Your task to perform on an android device: Open Youtube and go to "Your channel" Image 0: 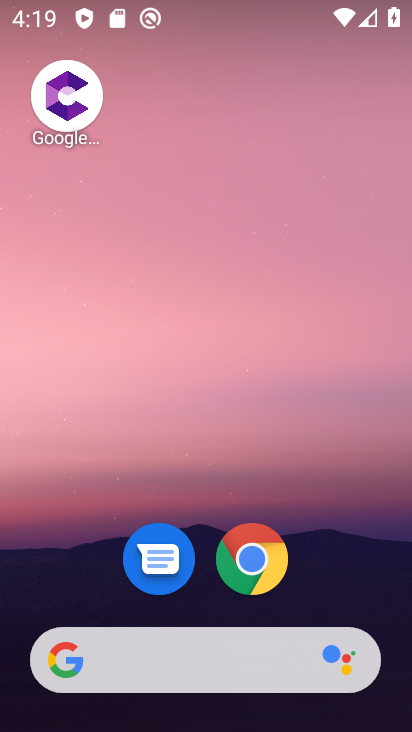
Step 0: drag from (379, 589) to (281, 99)
Your task to perform on an android device: Open Youtube and go to "Your channel" Image 1: 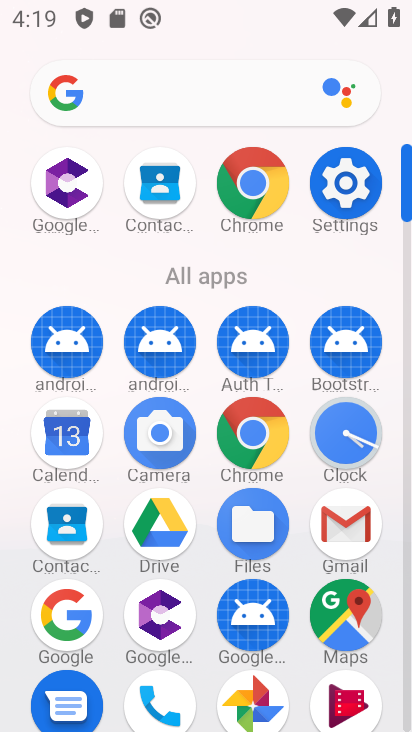
Step 1: click (406, 700)
Your task to perform on an android device: Open Youtube and go to "Your channel" Image 2: 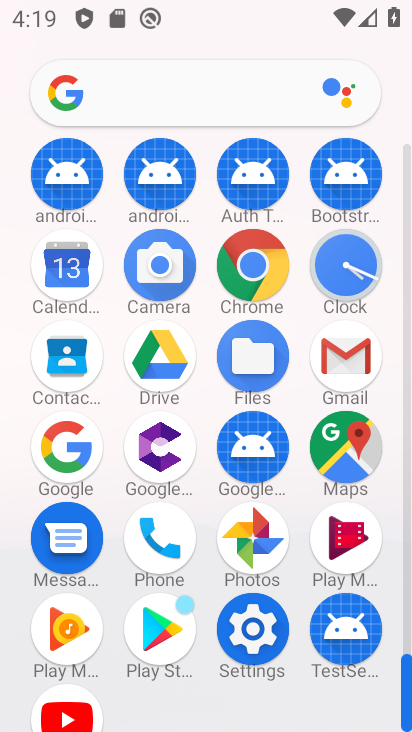
Step 2: click (66, 715)
Your task to perform on an android device: Open Youtube and go to "Your channel" Image 3: 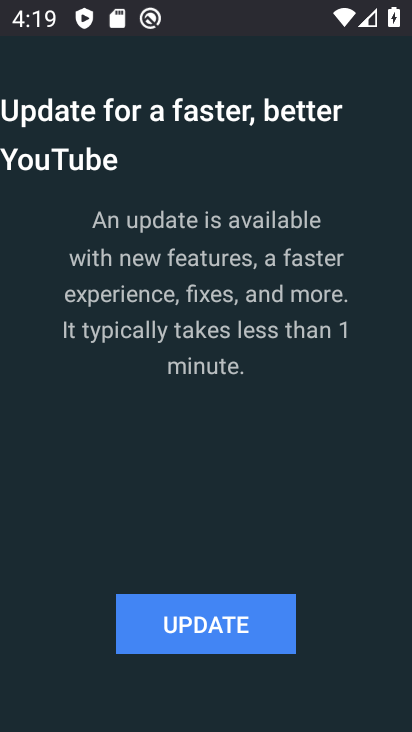
Step 3: click (244, 639)
Your task to perform on an android device: Open Youtube and go to "Your channel" Image 4: 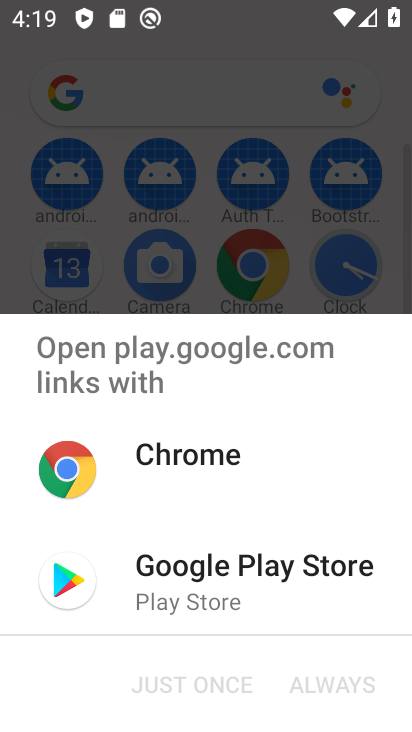
Step 4: click (234, 599)
Your task to perform on an android device: Open Youtube and go to "Your channel" Image 5: 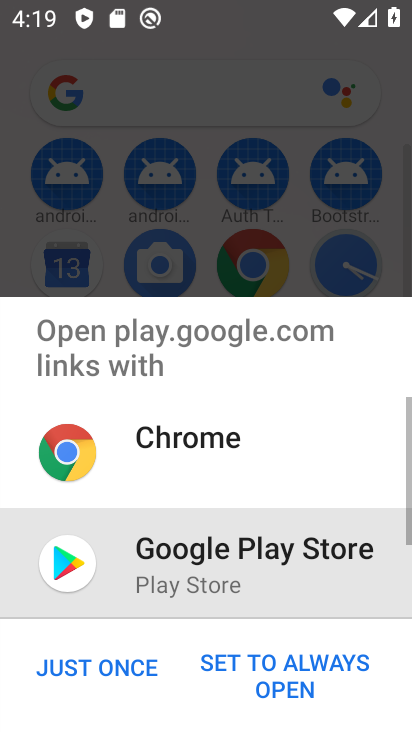
Step 5: click (136, 657)
Your task to perform on an android device: Open Youtube and go to "Your channel" Image 6: 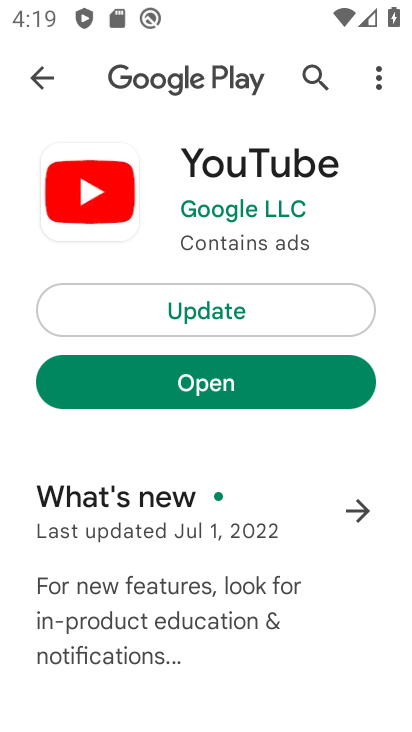
Step 6: click (187, 316)
Your task to perform on an android device: Open Youtube and go to "Your channel" Image 7: 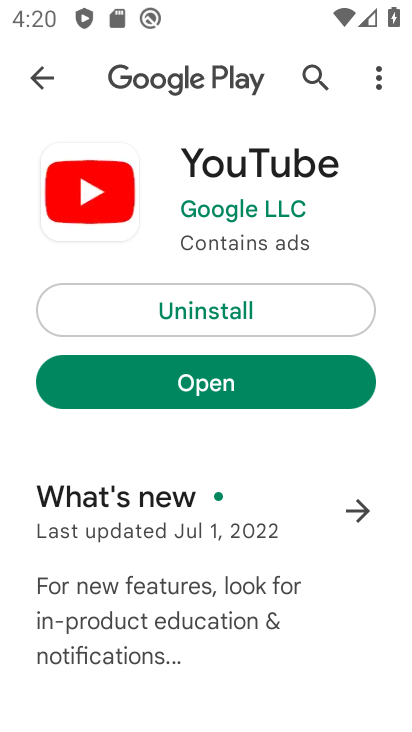
Step 7: click (267, 390)
Your task to perform on an android device: Open Youtube and go to "Your channel" Image 8: 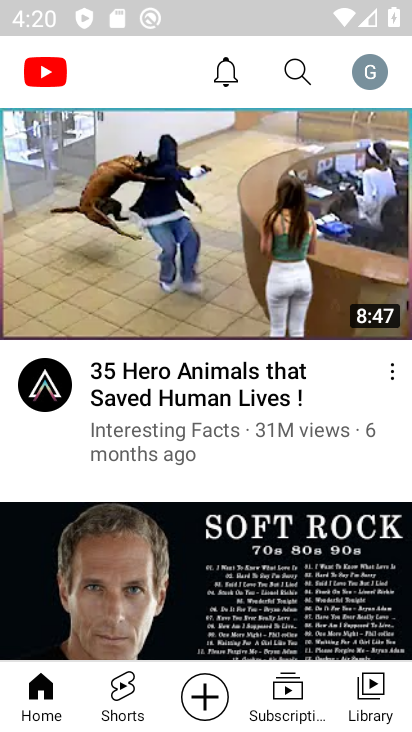
Step 8: click (370, 67)
Your task to perform on an android device: Open Youtube and go to "Your channel" Image 9: 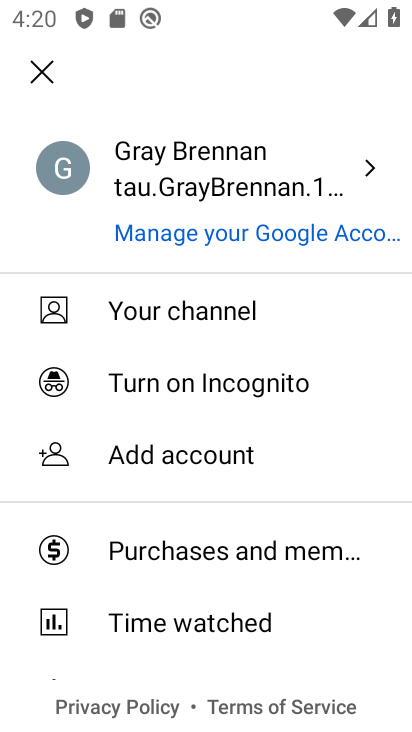
Step 9: click (214, 311)
Your task to perform on an android device: Open Youtube and go to "Your channel" Image 10: 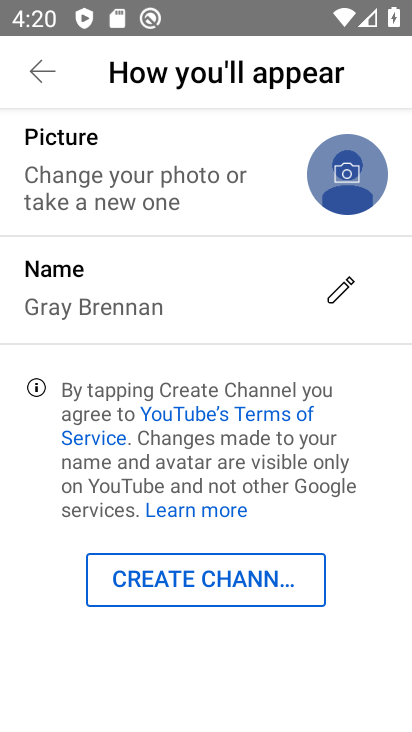
Step 10: task complete